Your task to perform on an android device: Open the settings Image 0: 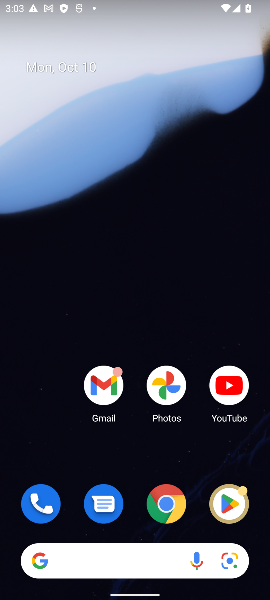
Step 0: drag from (163, 506) to (131, 28)
Your task to perform on an android device: Open the settings Image 1: 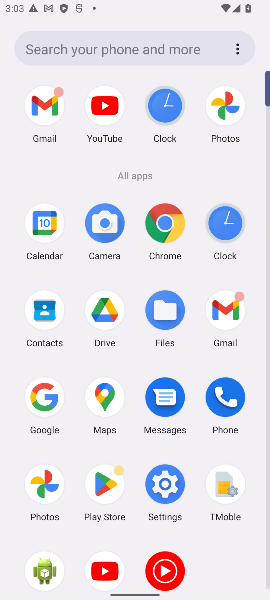
Step 1: click (166, 480)
Your task to perform on an android device: Open the settings Image 2: 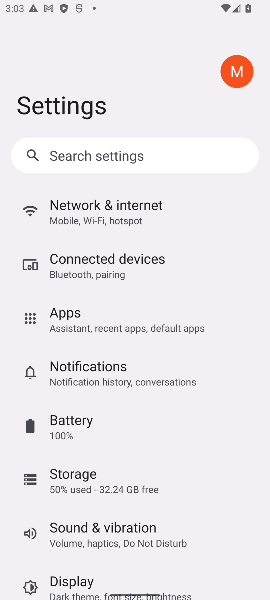
Step 2: task complete